Your task to perform on an android device: search for starred emails in the gmail app Image 0: 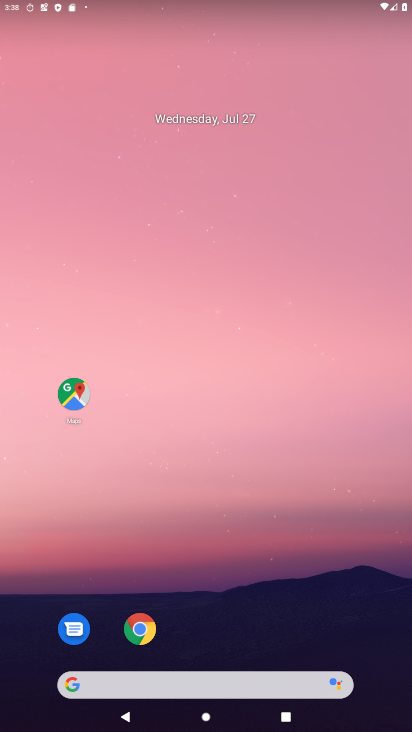
Step 0: drag from (333, 604) to (299, 75)
Your task to perform on an android device: search for starred emails in the gmail app Image 1: 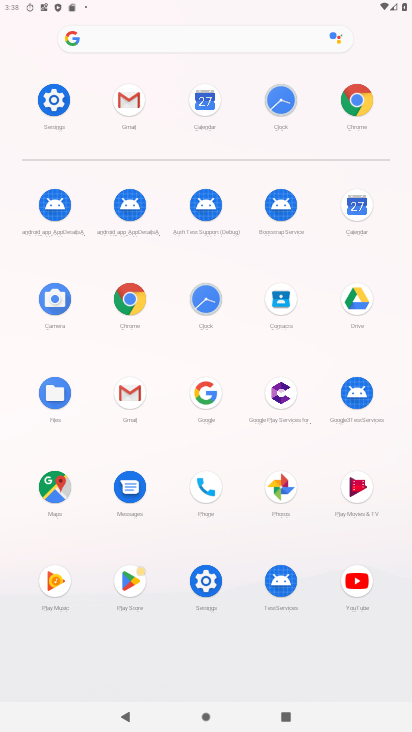
Step 1: click (119, 95)
Your task to perform on an android device: search for starred emails in the gmail app Image 2: 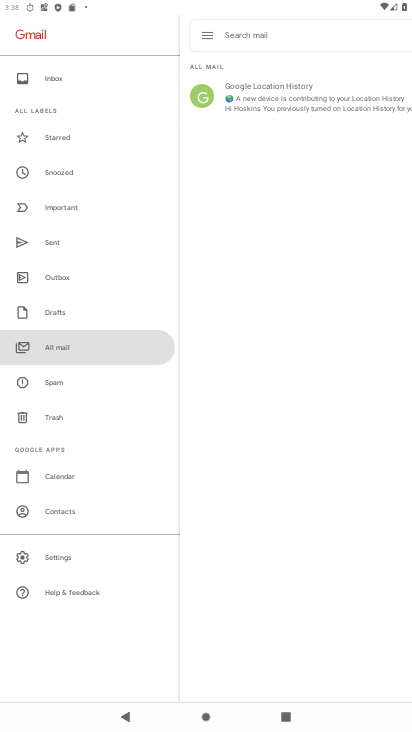
Step 2: click (61, 140)
Your task to perform on an android device: search for starred emails in the gmail app Image 3: 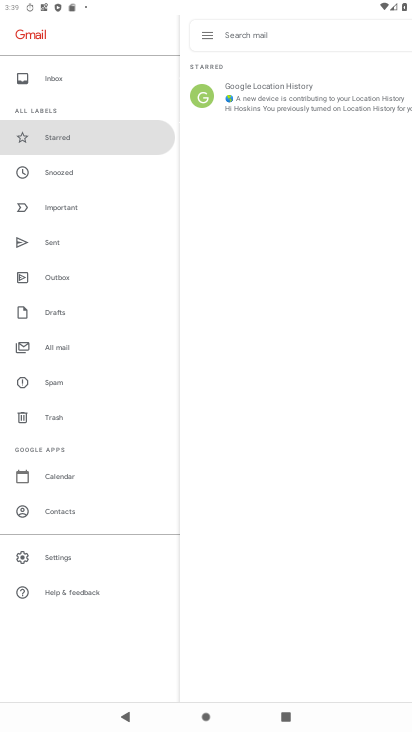
Step 3: task complete